Your task to perform on an android device: remove spam from my inbox in the gmail app Image 0: 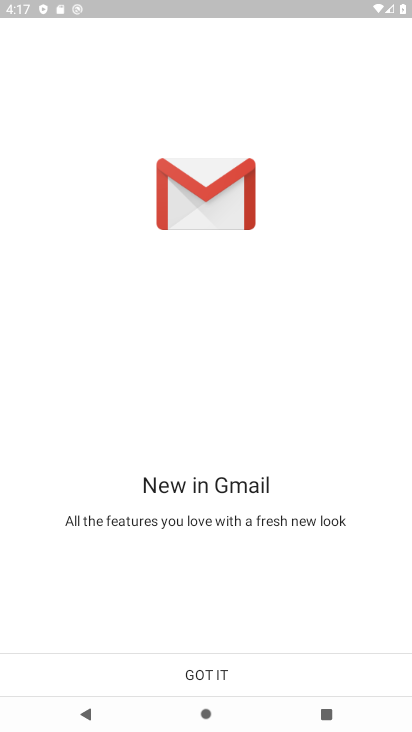
Step 0: click (312, 679)
Your task to perform on an android device: remove spam from my inbox in the gmail app Image 1: 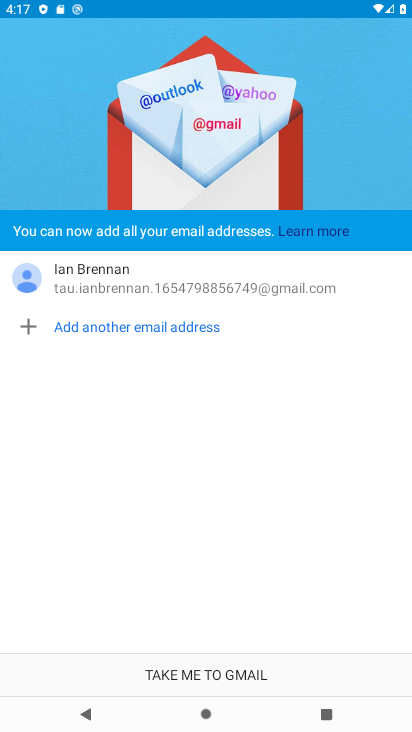
Step 1: click (197, 680)
Your task to perform on an android device: remove spam from my inbox in the gmail app Image 2: 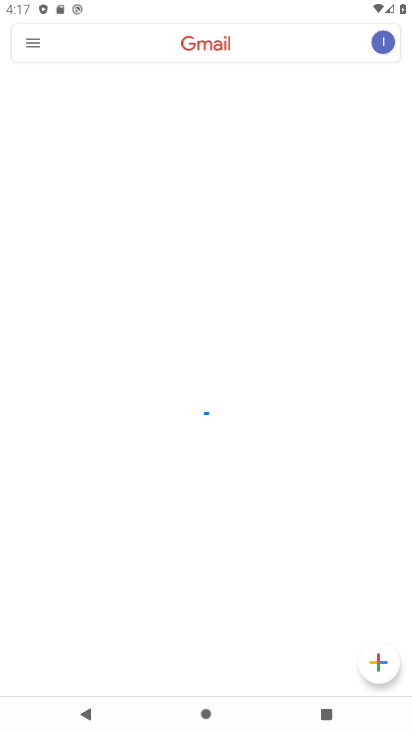
Step 2: click (29, 49)
Your task to perform on an android device: remove spam from my inbox in the gmail app Image 3: 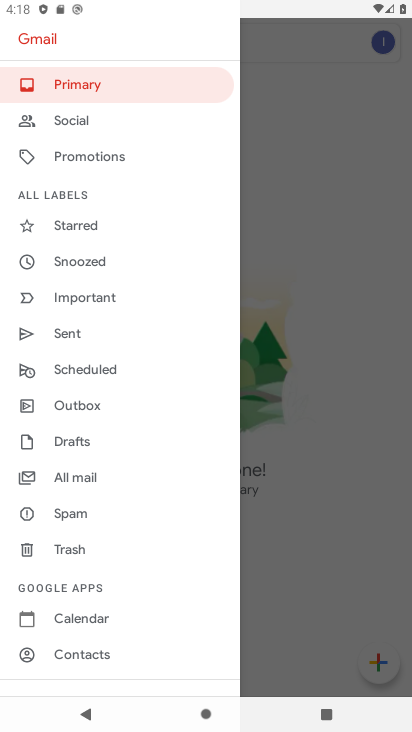
Step 3: click (110, 517)
Your task to perform on an android device: remove spam from my inbox in the gmail app Image 4: 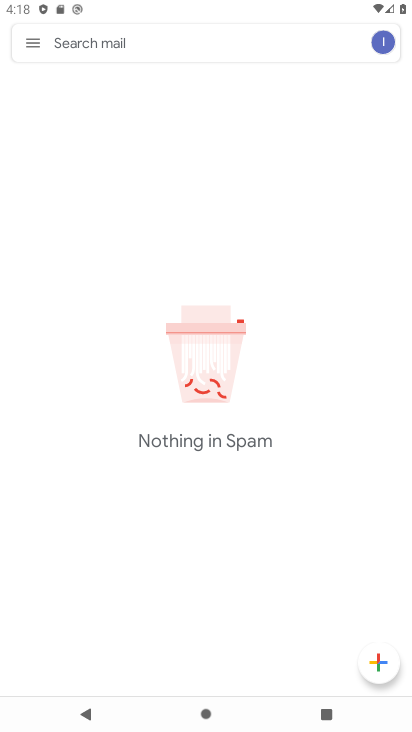
Step 4: task complete